Your task to perform on an android device: change notifications settings Image 0: 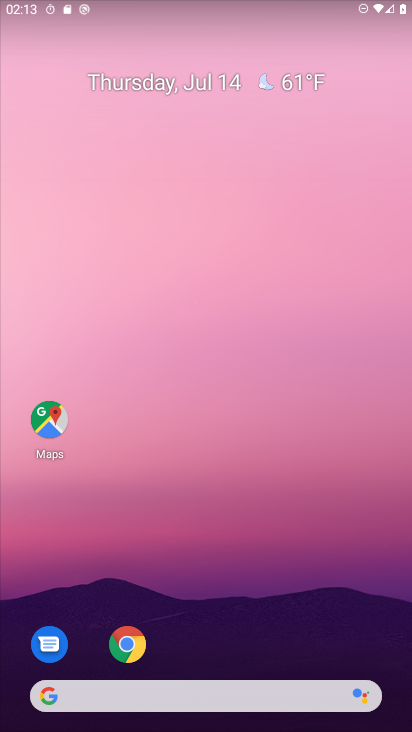
Step 0: drag from (292, 609) to (213, 176)
Your task to perform on an android device: change notifications settings Image 1: 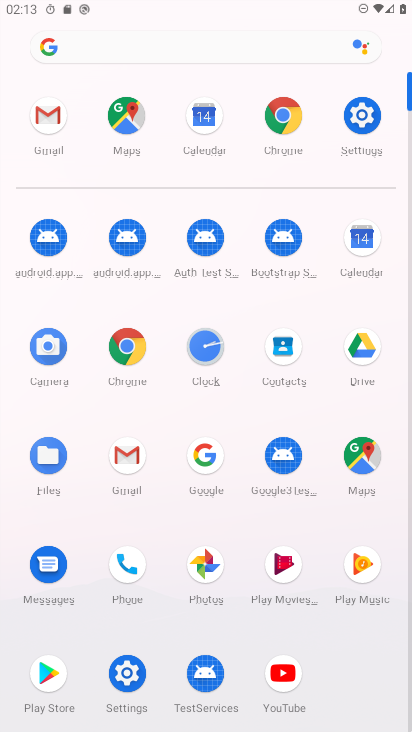
Step 1: click (368, 106)
Your task to perform on an android device: change notifications settings Image 2: 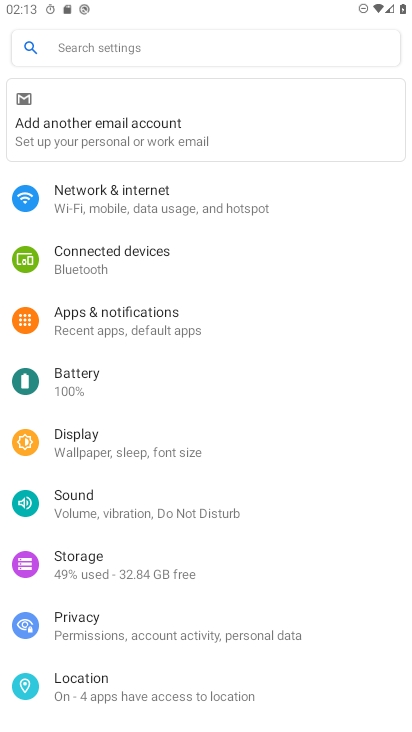
Step 2: click (139, 313)
Your task to perform on an android device: change notifications settings Image 3: 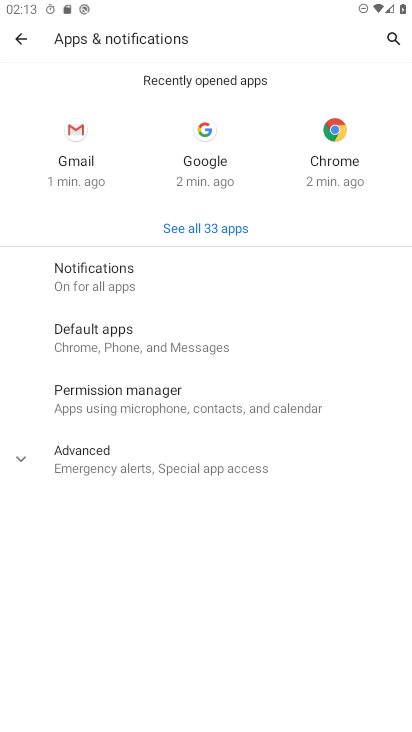
Step 3: click (120, 284)
Your task to perform on an android device: change notifications settings Image 4: 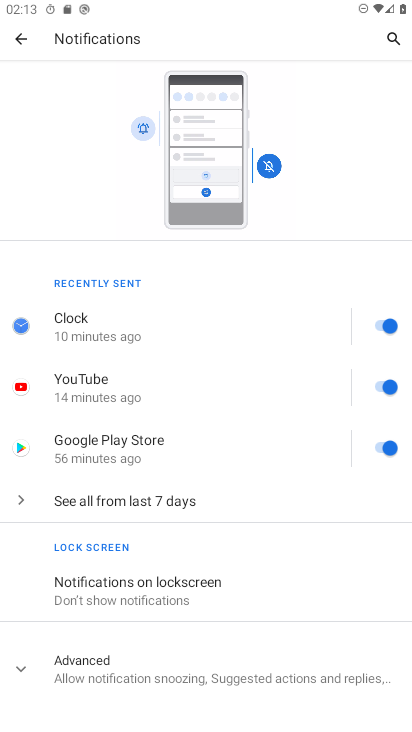
Step 4: task complete